Your task to perform on an android device: open app "The Home Depot" Image 0: 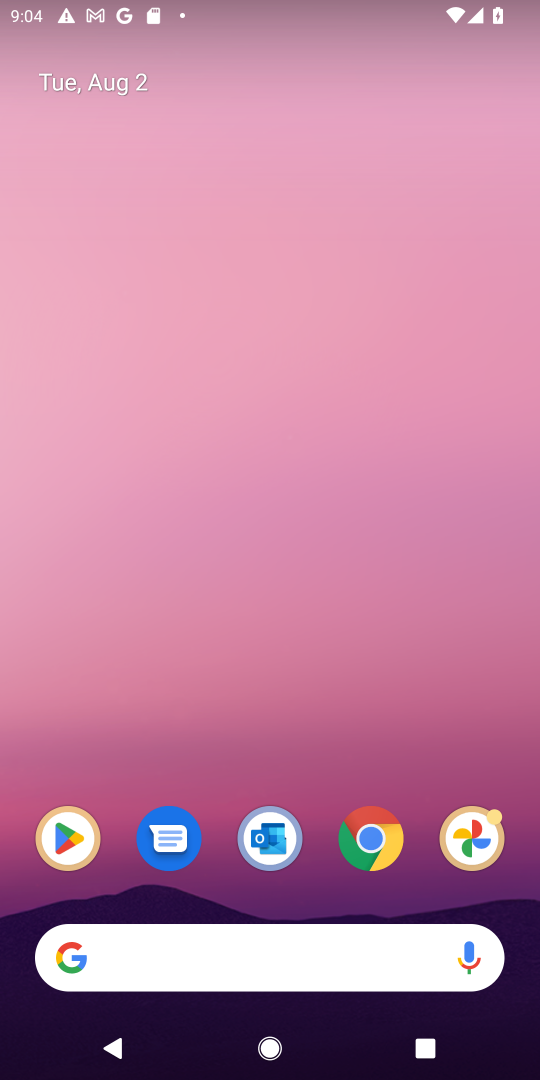
Step 0: drag from (217, 782) to (274, 60)
Your task to perform on an android device: open app "The Home Depot" Image 1: 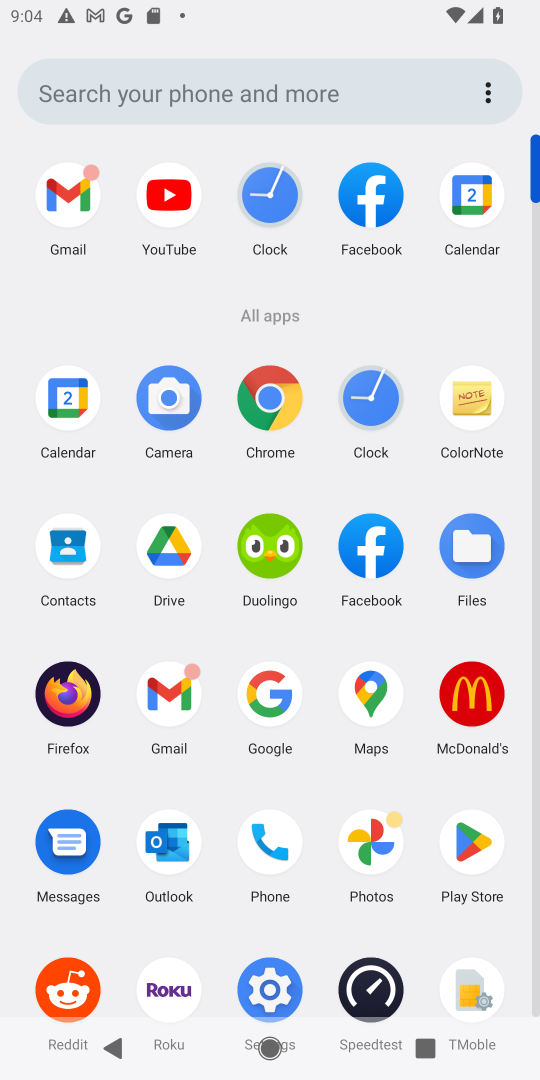
Step 1: click (481, 850)
Your task to perform on an android device: open app "The Home Depot" Image 2: 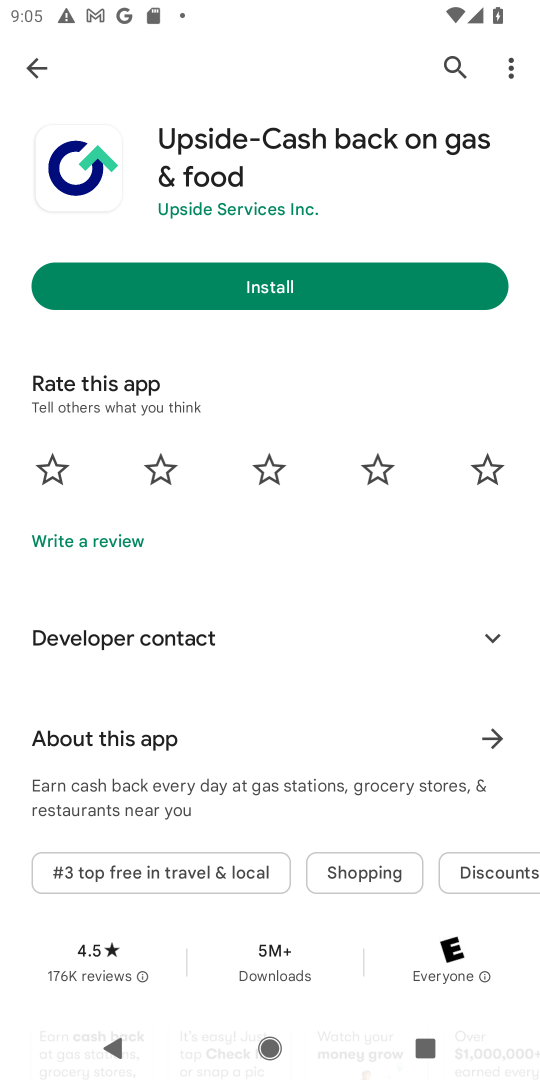
Step 2: click (452, 68)
Your task to perform on an android device: open app "The Home Depot" Image 3: 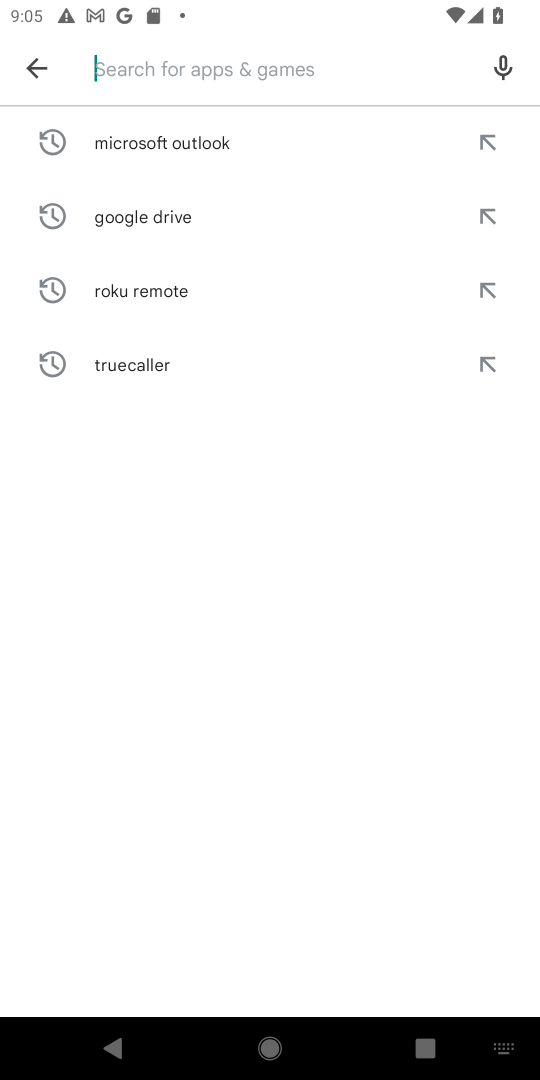
Step 3: click (347, 77)
Your task to perform on an android device: open app "The Home Depot" Image 4: 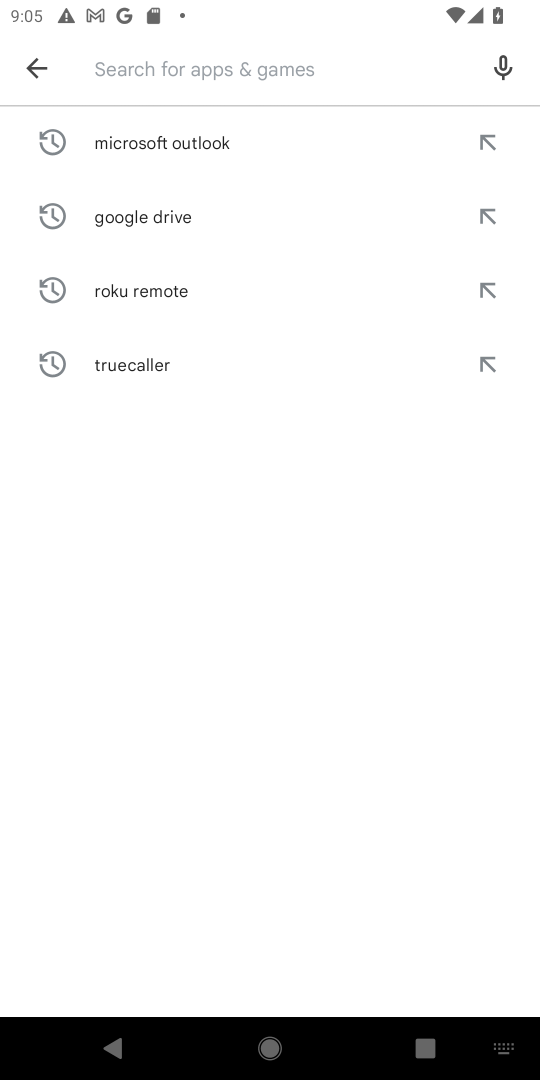
Step 4: type "the home depot"
Your task to perform on an android device: open app "The Home Depot" Image 5: 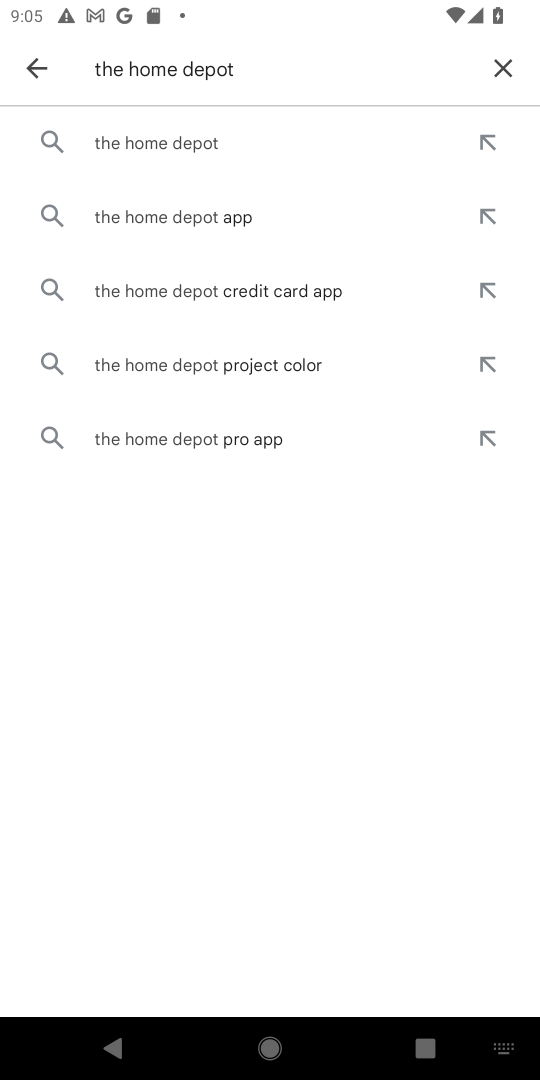
Step 5: click (195, 146)
Your task to perform on an android device: open app "The Home Depot" Image 6: 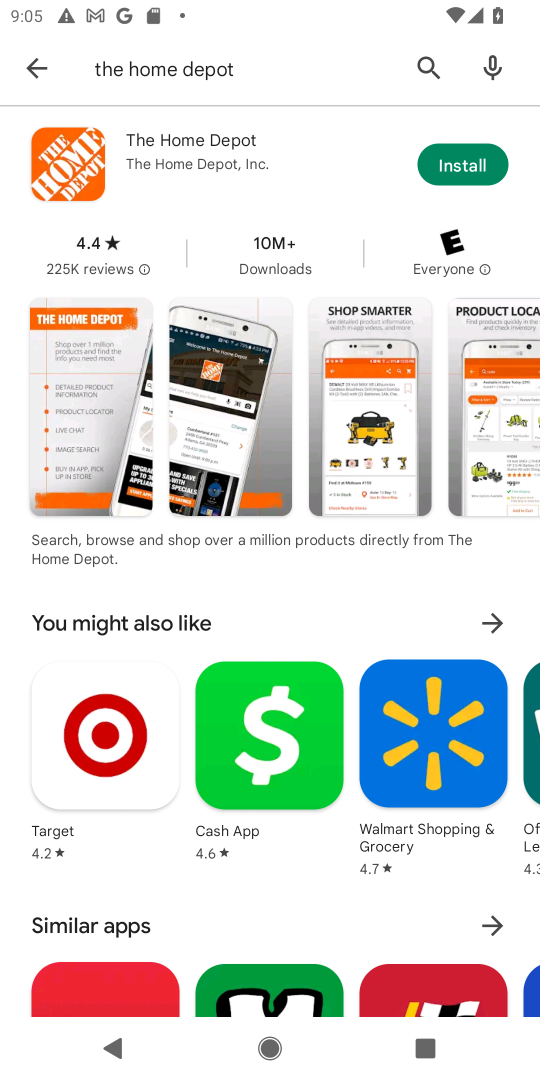
Step 6: task complete